Your task to perform on an android device: snooze an email in the gmail app Image 0: 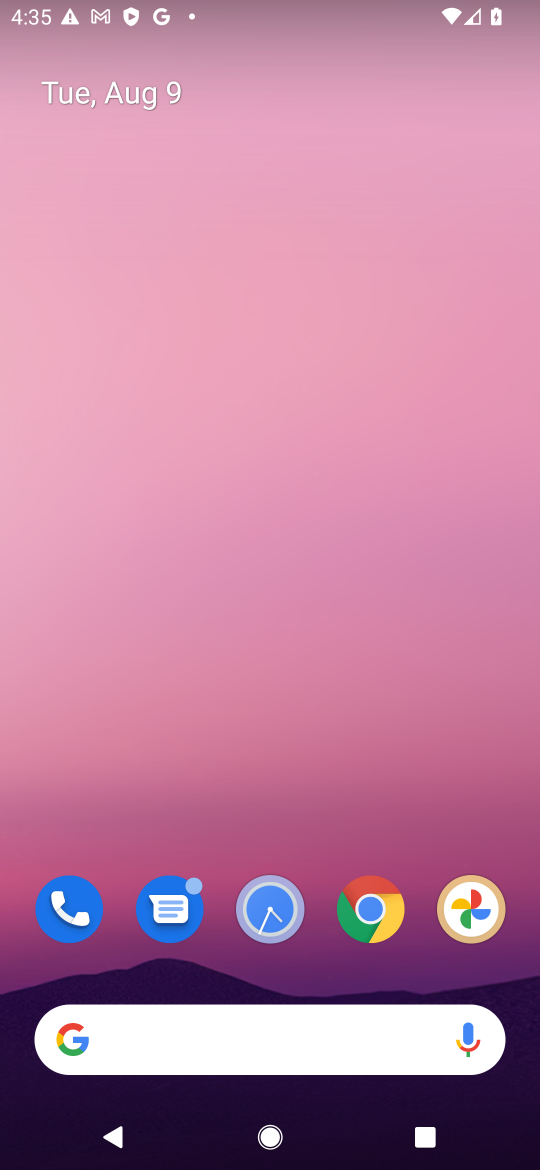
Step 0: drag from (454, 869) to (387, 442)
Your task to perform on an android device: snooze an email in the gmail app Image 1: 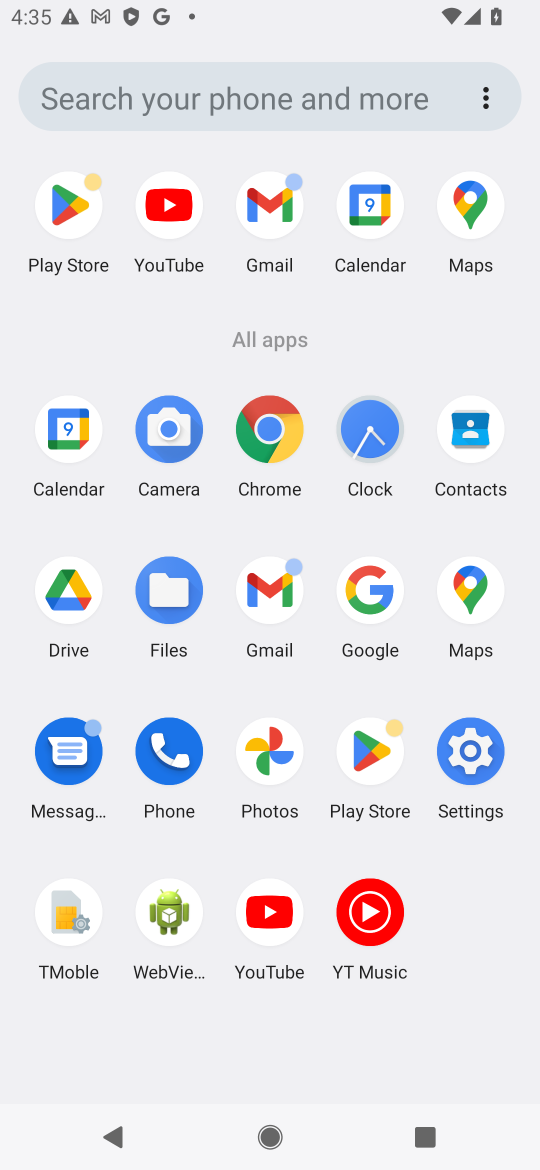
Step 1: click (279, 596)
Your task to perform on an android device: snooze an email in the gmail app Image 2: 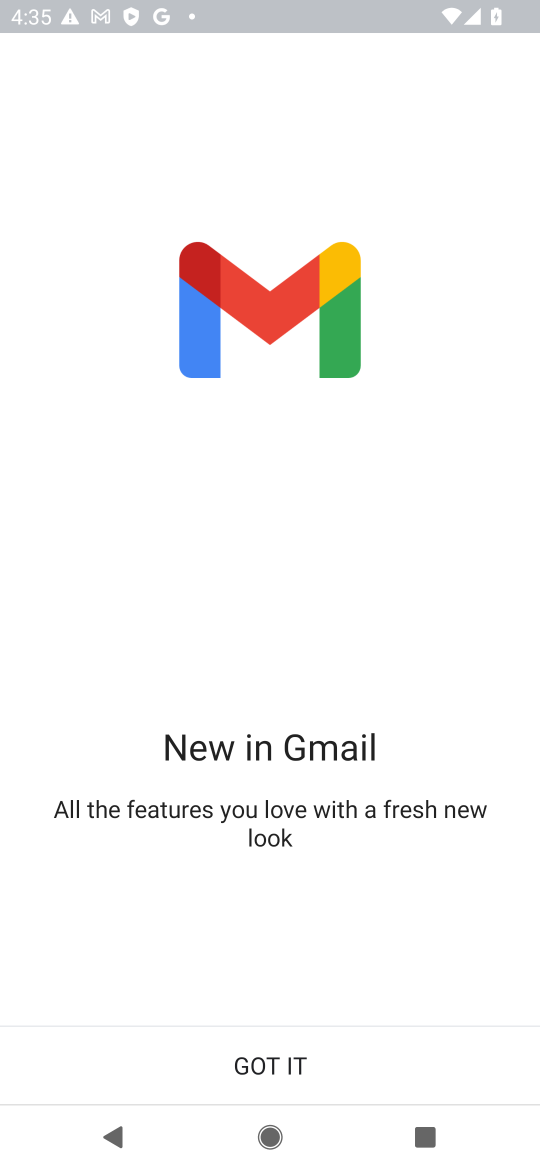
Step 2: click (358, 1044)
Your task to perform on an android device: snooze an email in the gmail app Image 3: 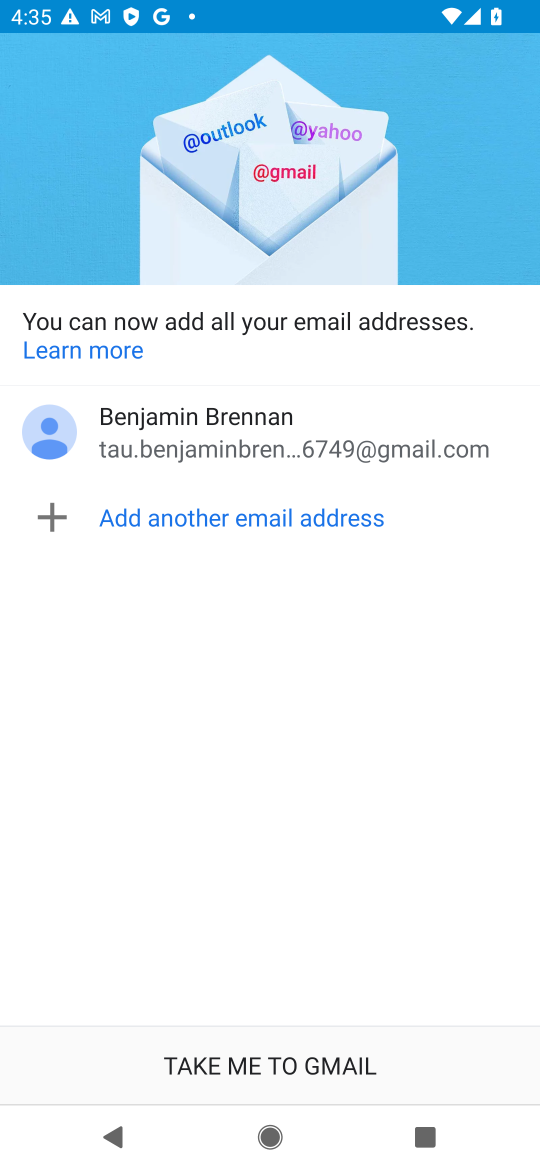
Step 3: click (333, 1074)
Your task to perform on an android device: snooze an email in the gmail app Image 4: 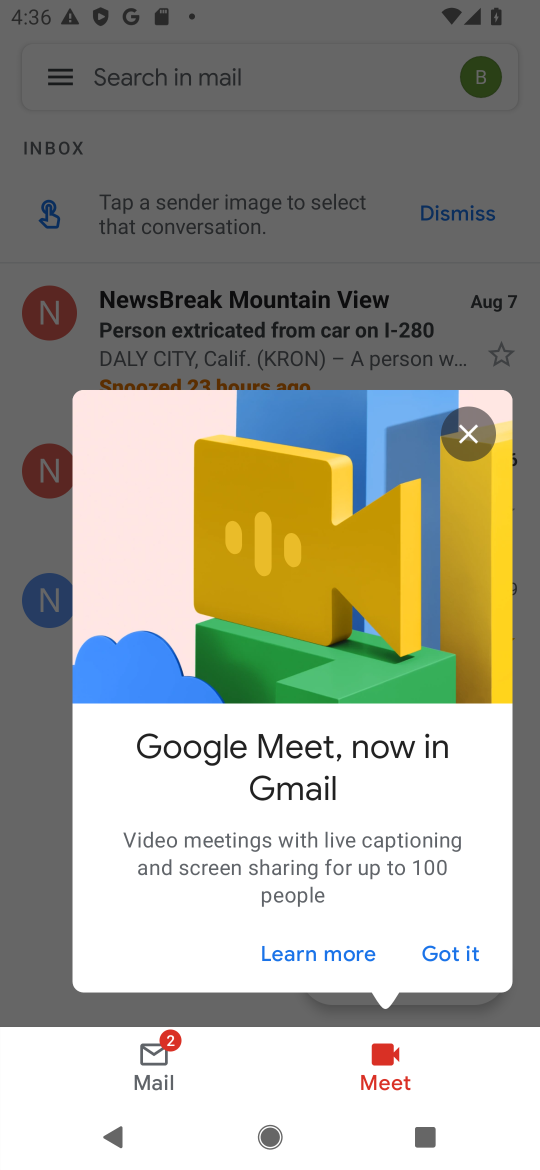
Step 4: click (478, 442)
Your task to perform on an android device: snooze an email in the gmail app Image 5: 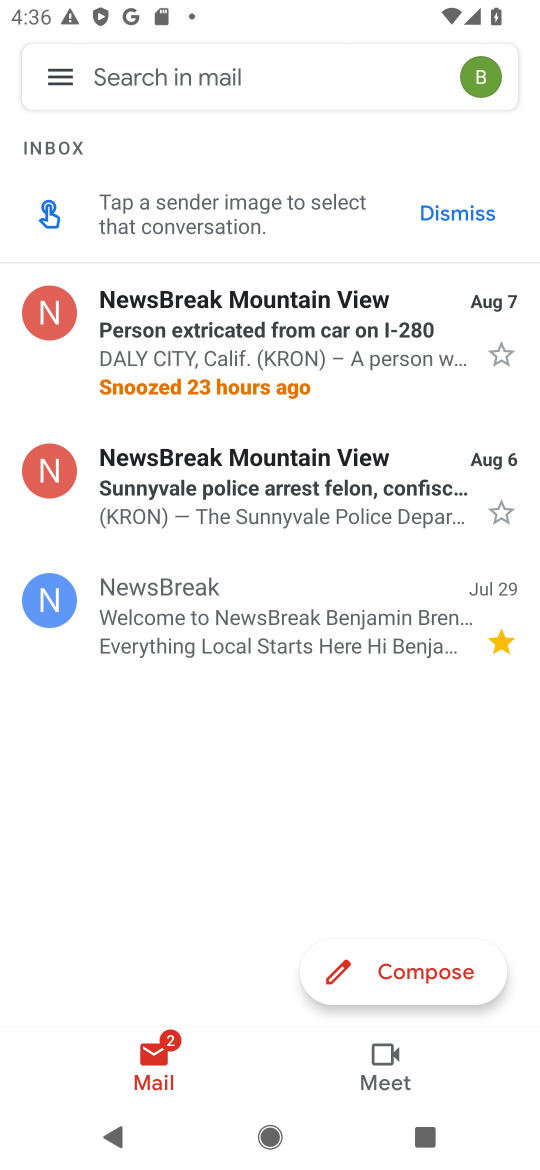
Step 5: click (316, 488)
Your task to perform on an android device: snooze an email in the gmail app Image 6: 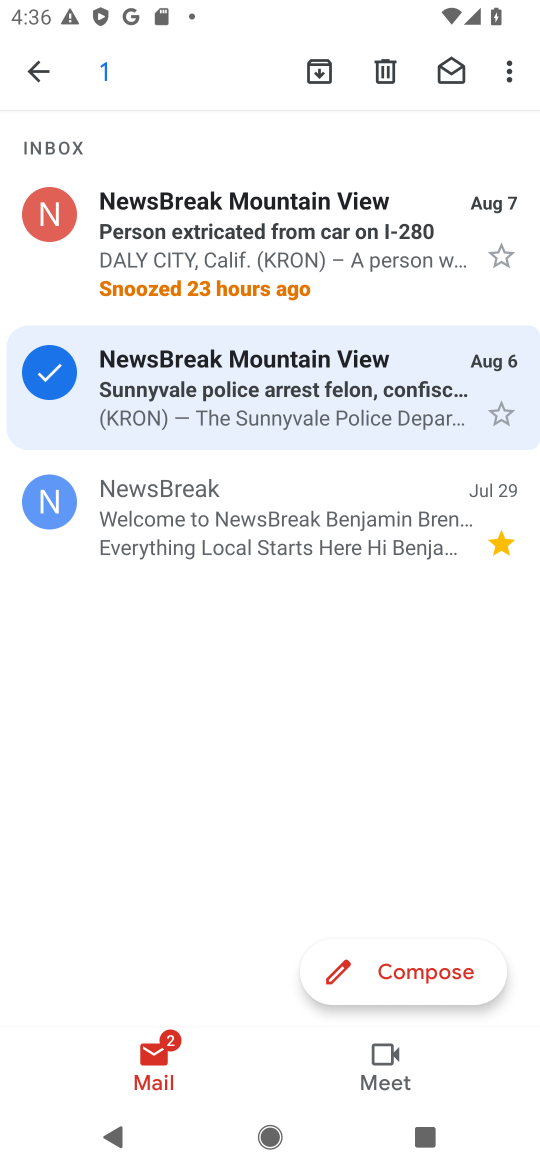
Step 6: click (512, 69)
Your task to perform on an android device: snooze an email in the gmail app Image 7: 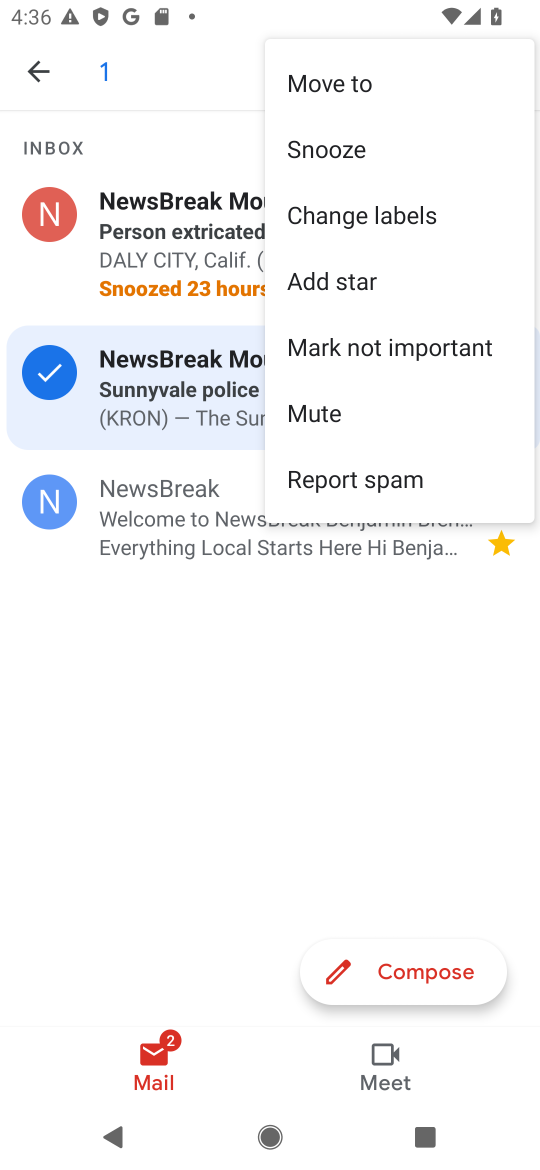
Step 7: click (346, 158)
Your task to perform on an android device: snooze an email in the gmail app Image 8: 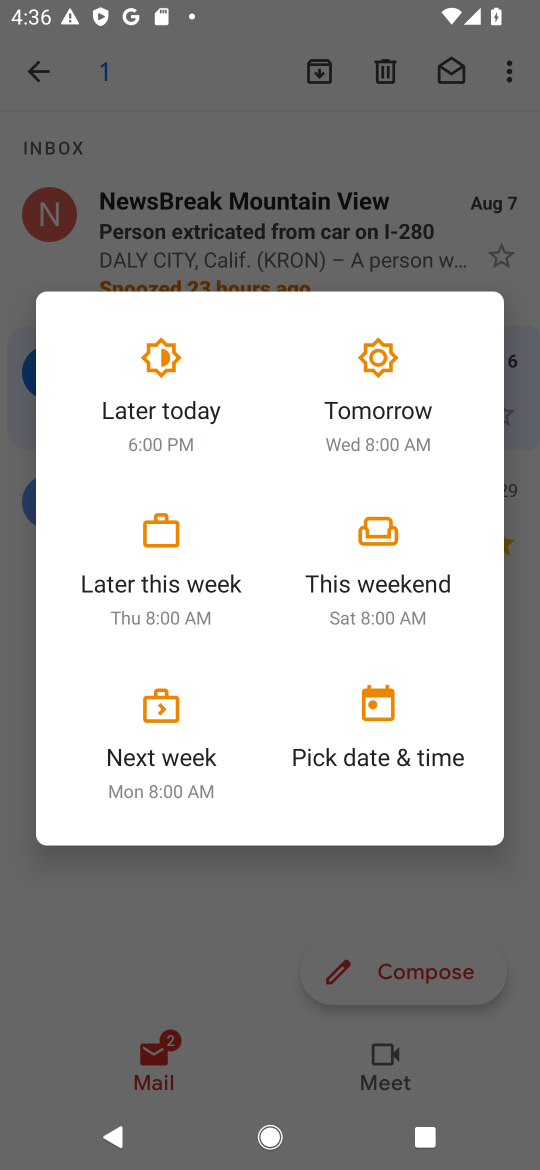
Step 8: click (392, 543)
Your task to perform on an android device: snooze an email in the gmail app Image 9: 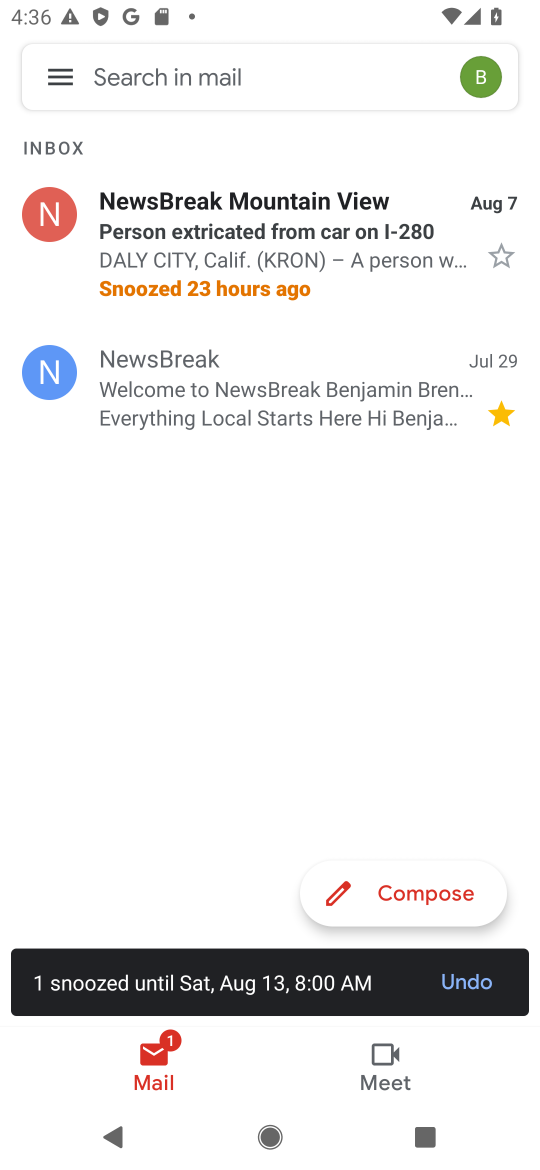
Step 9: task complete